Your task to perform on an android device: Open Chrome and go to settings Image 0: 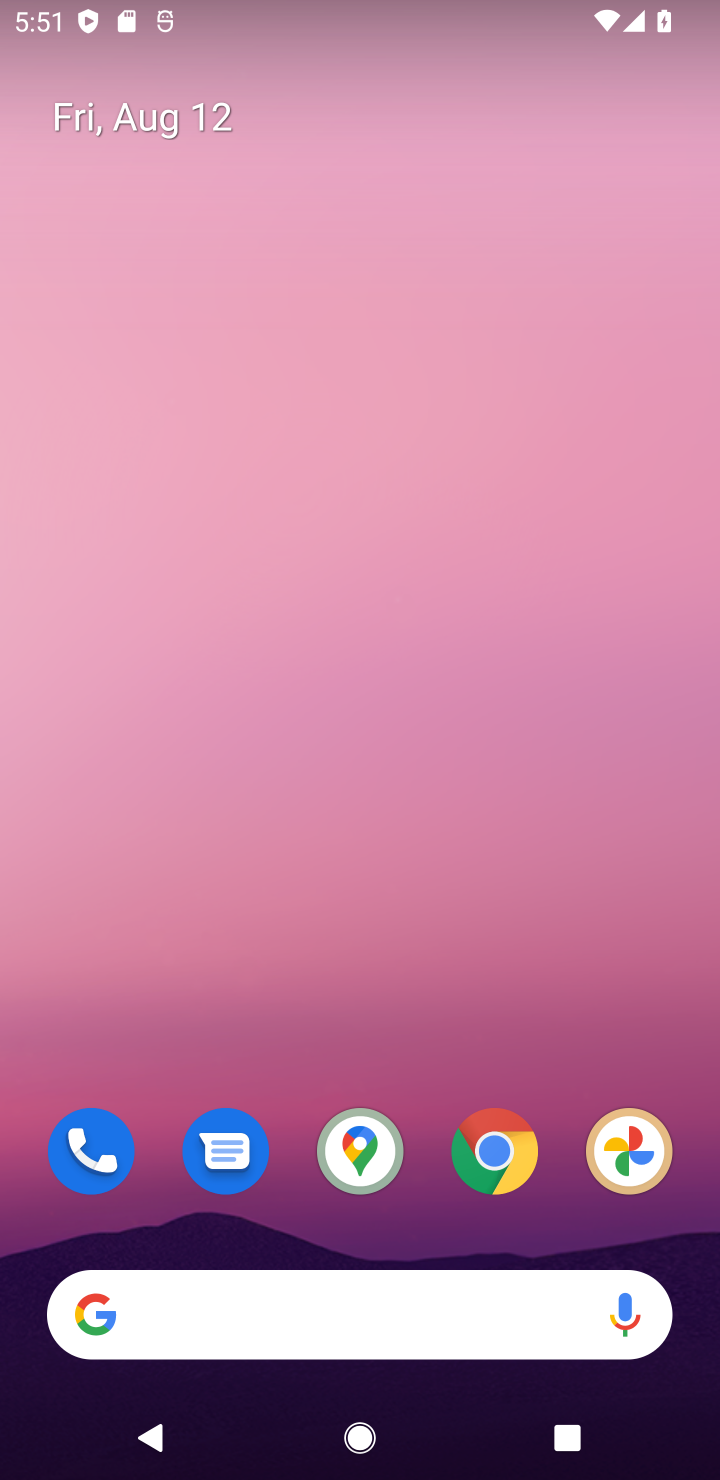
Step 0: drag from (476, 1051) to (420, 66)
Your task to perform on an android device: Open Chrome and go to settings Image 1: 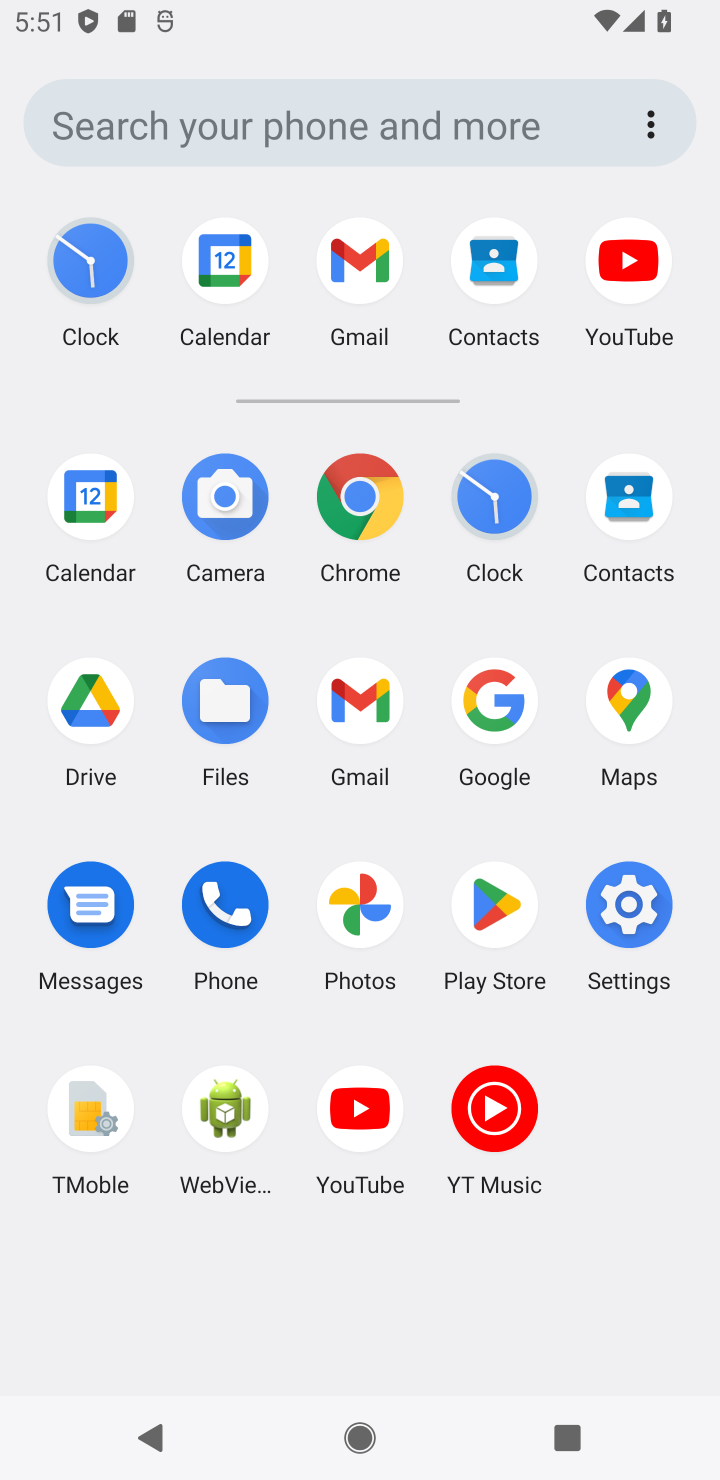
Step 1: click (370, 501)
Your task to perform on an android device: Open Chrome and go to settings Image 2: 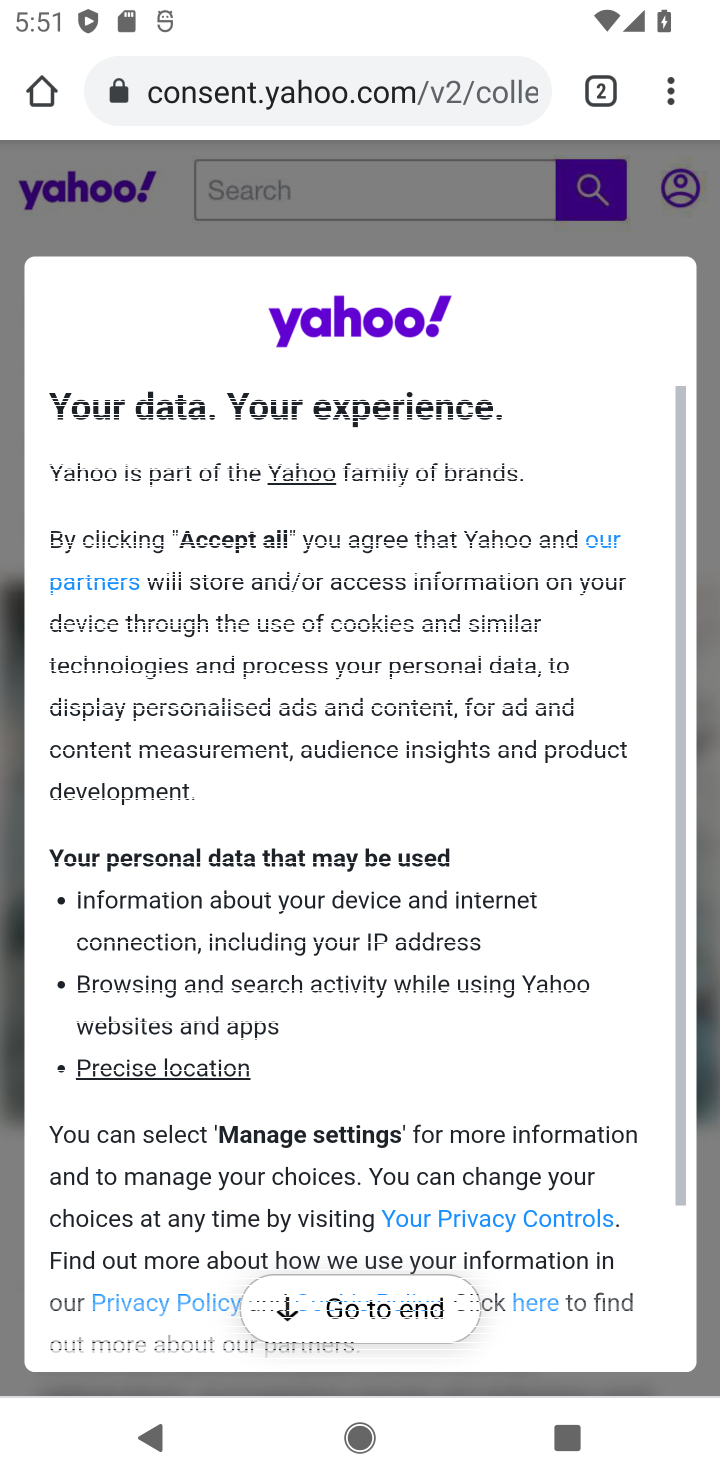
Step 2: drag from (653, 82) to (394, 1264)
Your task to perform on an android device: Open Chrome and go to settings Image 3: 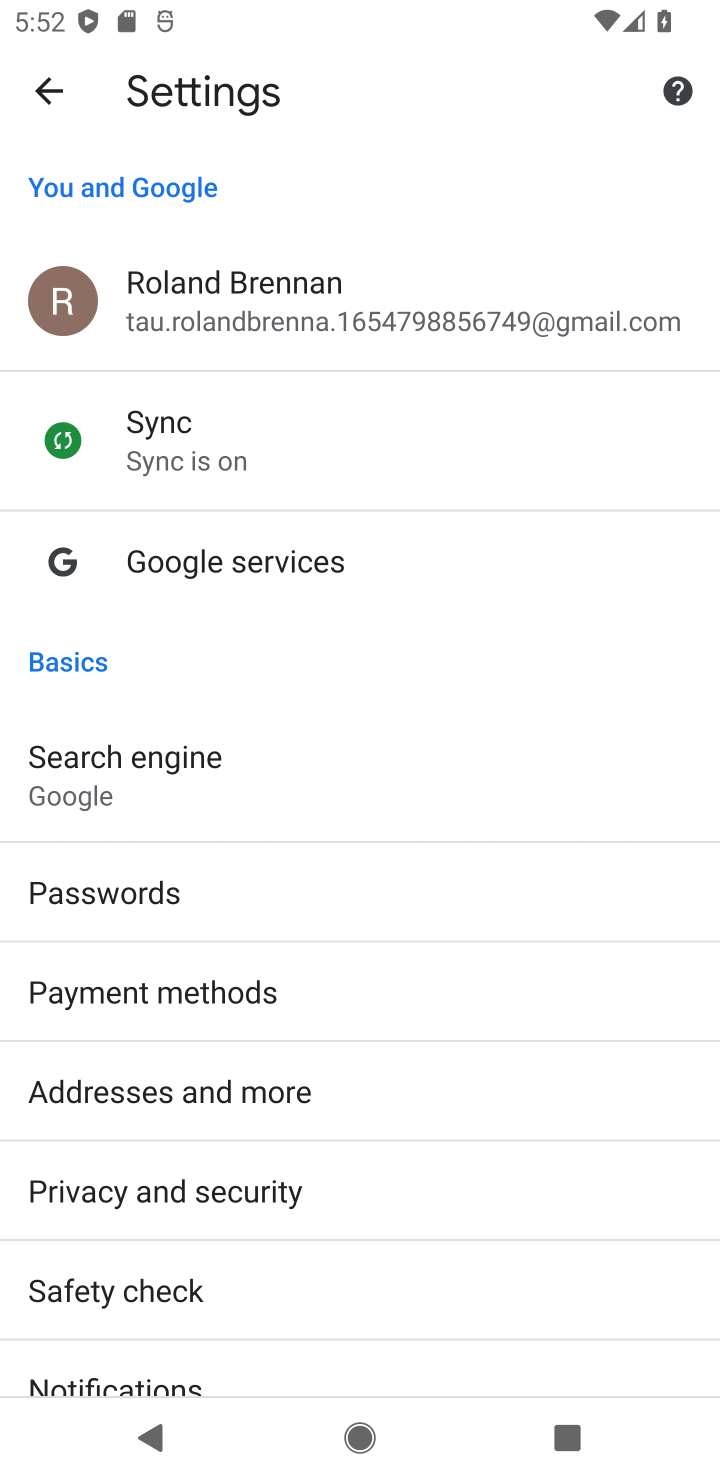
Step 3: click (241, 400)
Your task to perform on an android device: Open Chrome and go to settings Image 4: 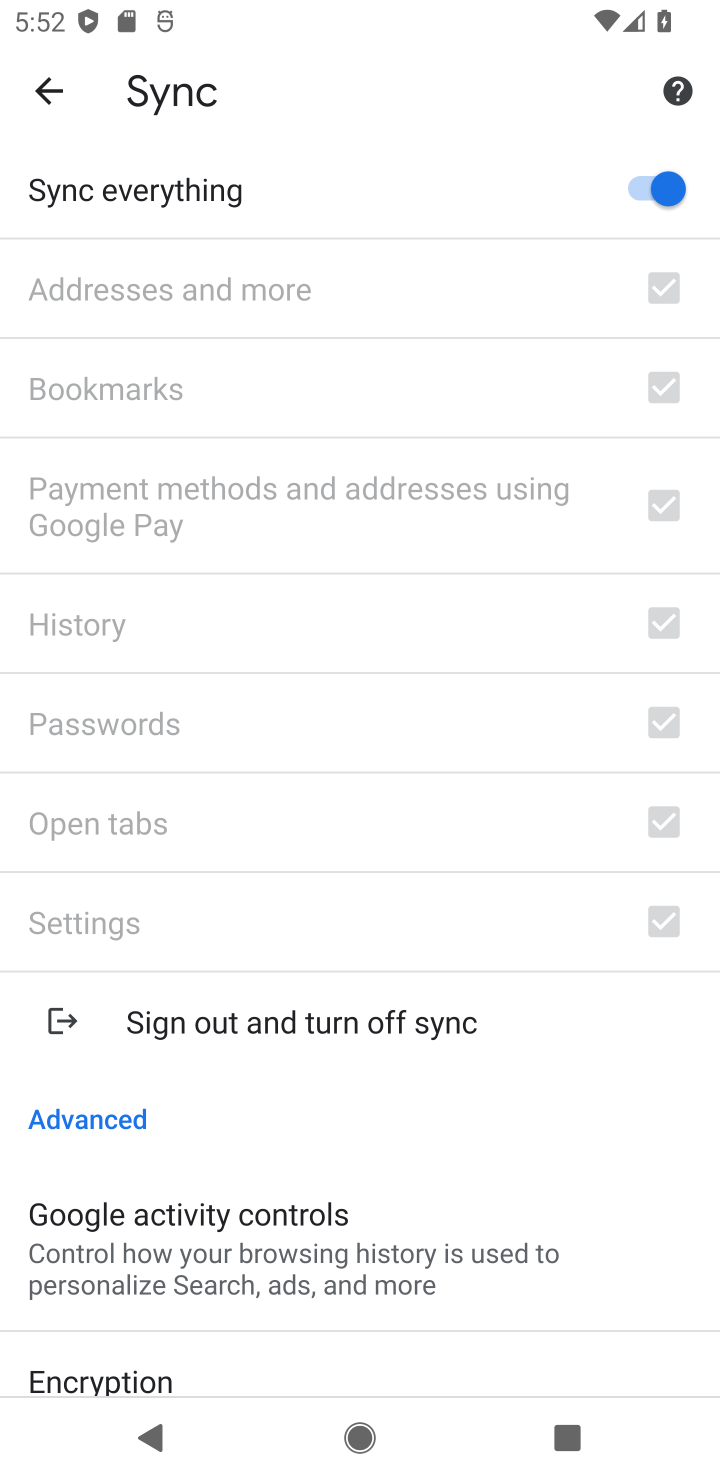
Step 4: click (61, 73)
Your task to perform on an android device: Open Chrome and go to settings Image 5: 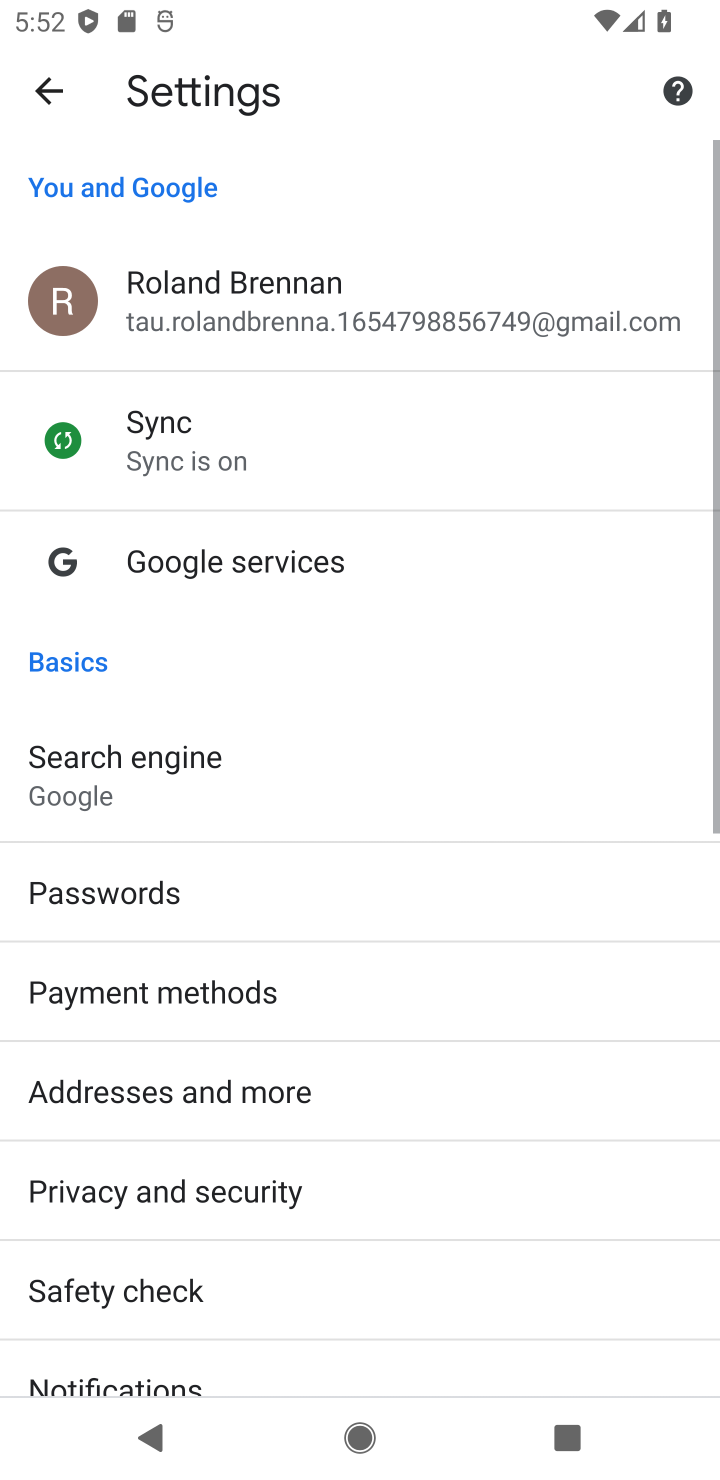
Step 5: task complete